Your task to perform on an android device: turn notification dots on Image 0: 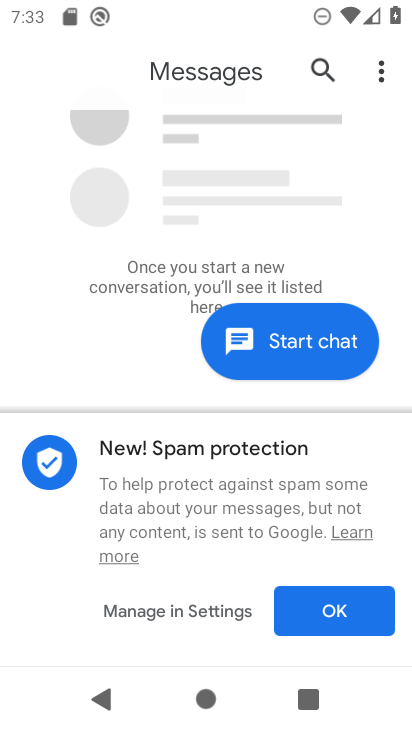
Step 0: press home button
Your task to perform on an android device: turn notification dots on Image 1: 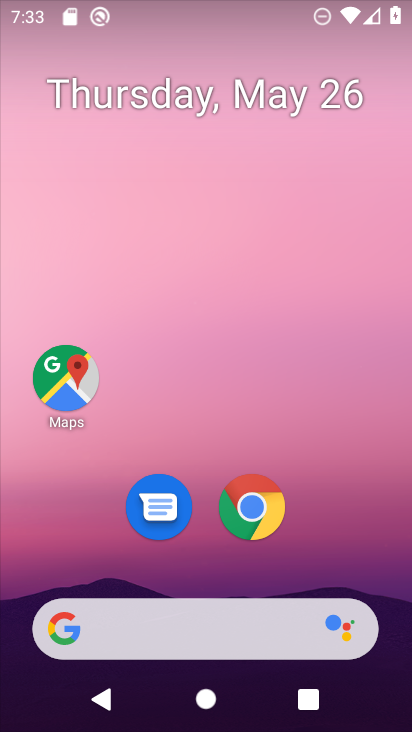
Step 1: drag from (219, 580) to (184, 144)
Your task to perform on an android device: turn notification dots on Image 2: 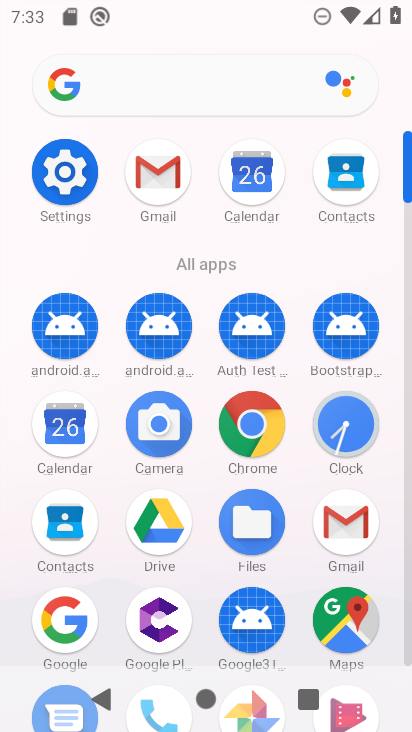
Step 2: click (65, 182)
Your task to perform on an android device: turn notification dots on Image 3: 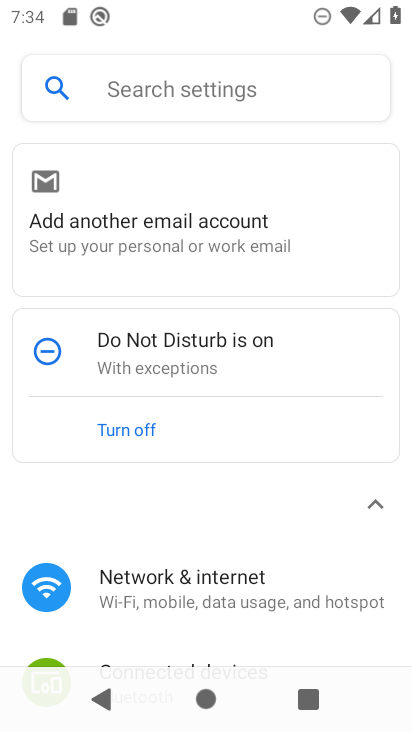
Step 3: drag from (183, 584) to (229, 121)
Your task to perform on an android device: turn notification dots on Image 4: 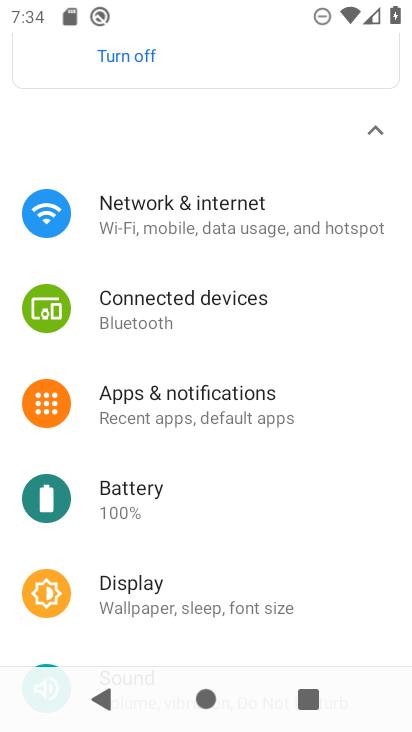
Step 4: click (190, 428)
Your task to perform on an android device: turn notification dots on Image 5: 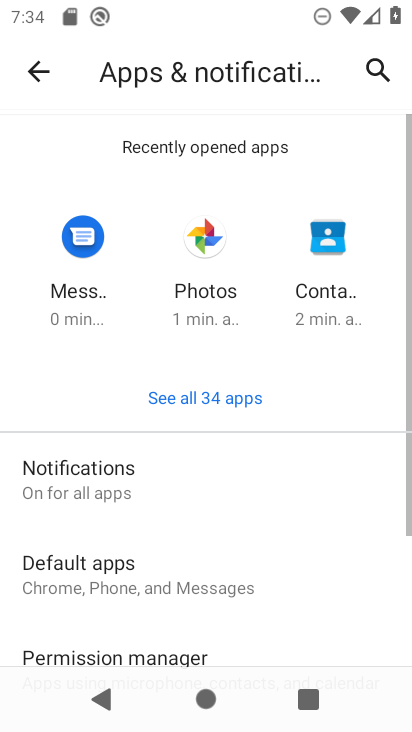
Step 5: click (116, 500)
Your task to perform on an android device: turn notification dots on Image 6: 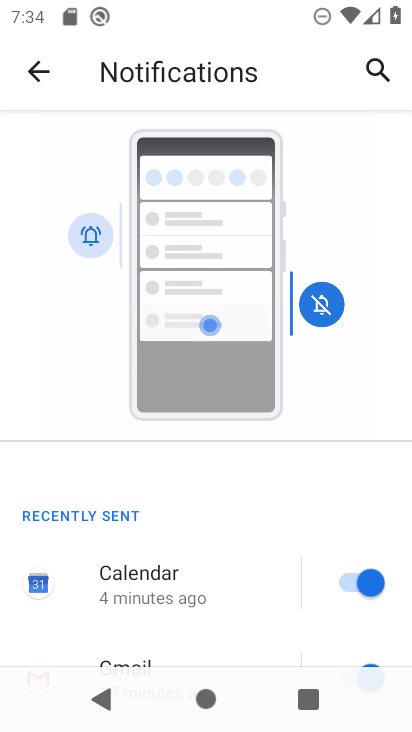
Step 6: drag from (199, 509) to (216, 134)
Your task to perform on an android device: turn notification dots on Image 7: 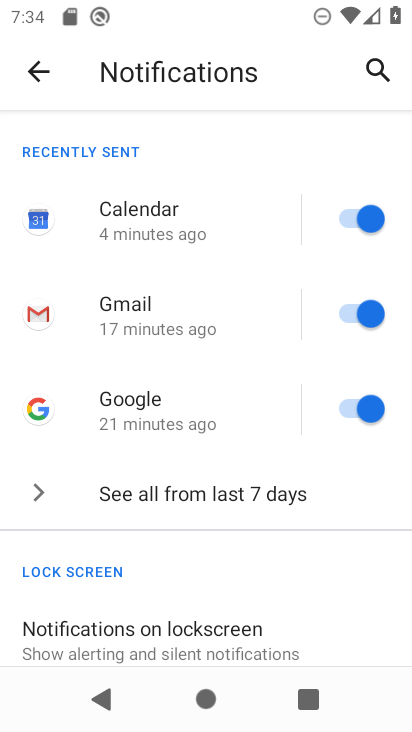
Step 7: drag from (166, 520) to (170, 119)
Your task to perform on an android device: turn notification dots on Image 8: 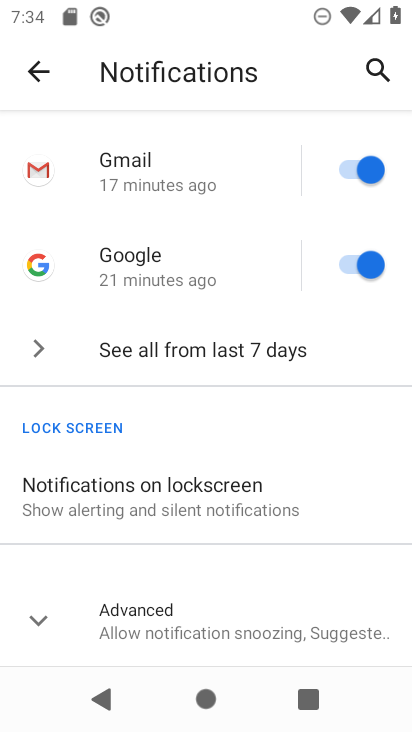
Step 8: click (122, 608)
Your task to perform on an android device: turn notification dots on Image 9: 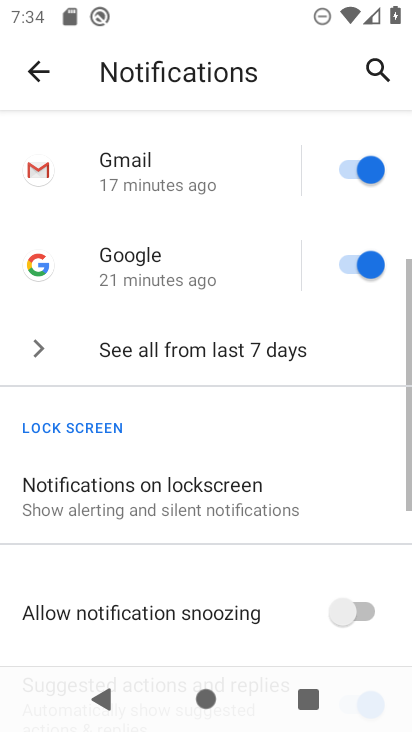
Step 9: task complete